Your task to perform on an android device: turn off notifications in google photos Image 0: 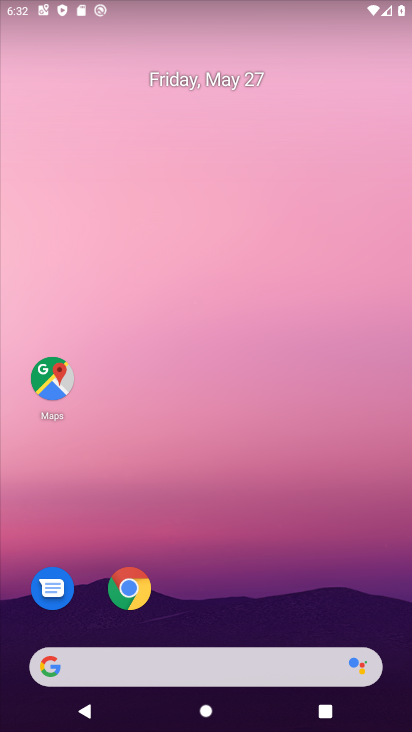
Step 0: press home button
Your task to perform on an android device: turn off notifications in google photos Image 1: 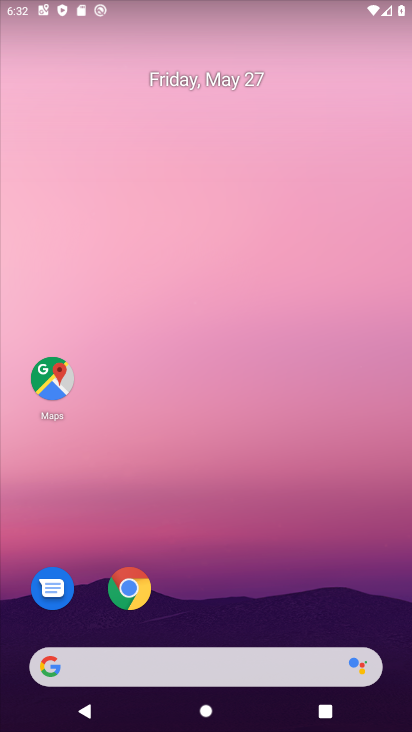
Step 1: drag from (287, 607) to (336, 140)
Your task to perform on an android device: turn off notifications in google photos Image 2: 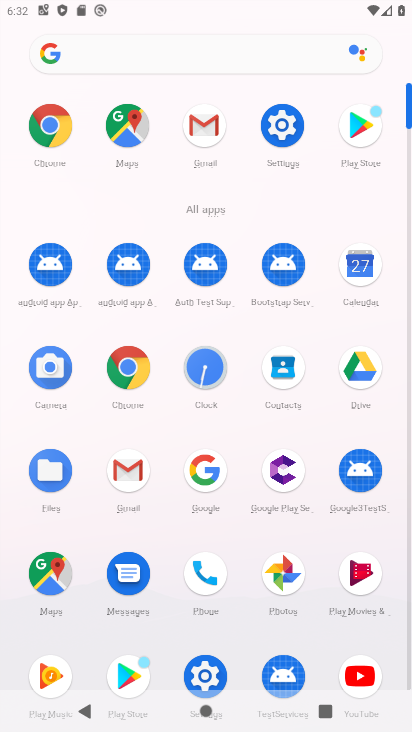
Step 2: click (267, 559)
Your task to perform on an android device: turn off notifications in google photos Image 3: 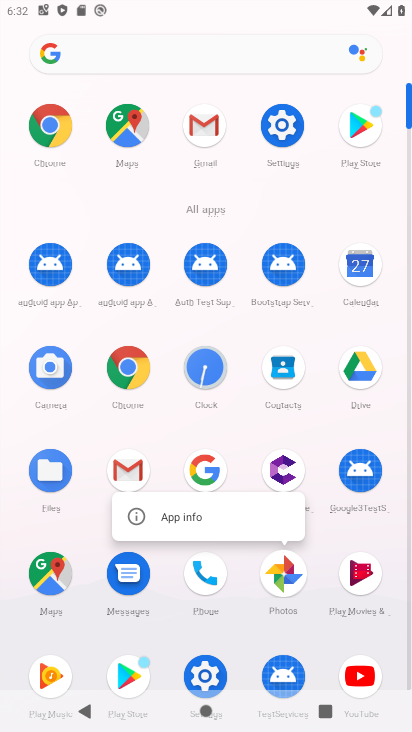
Step 3: click (243, 530)
Your task to perform on an android device: turn off notifications in google photos Image 4: 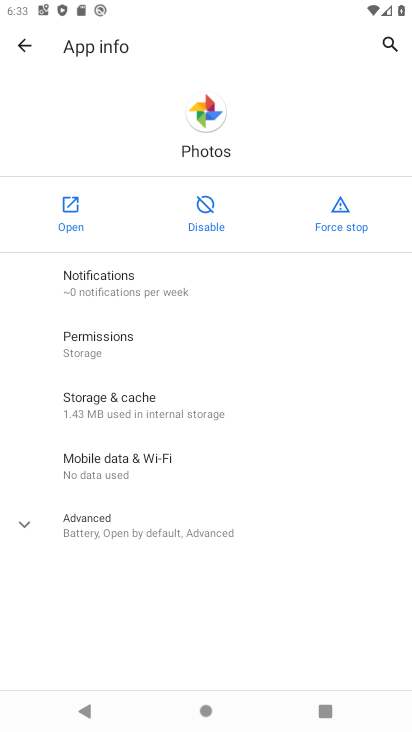
Step 4: click (142, 282)
Your task to perform on an android device: turn off notifications in google photos Image 5: 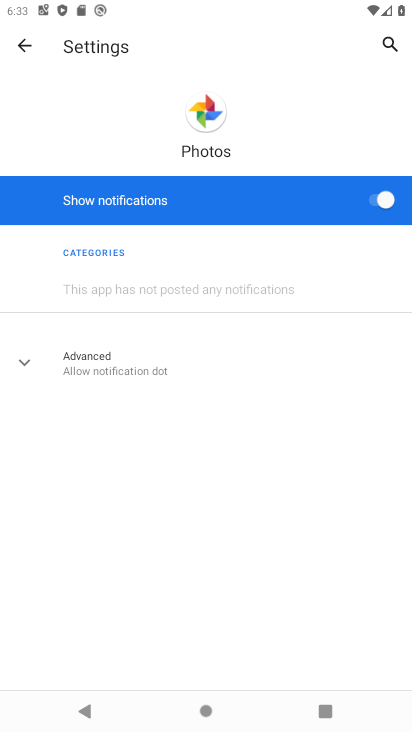
Step 5: click (199, 213)
Your task to perform on an android device: turn off notifications in google photos Image 6: 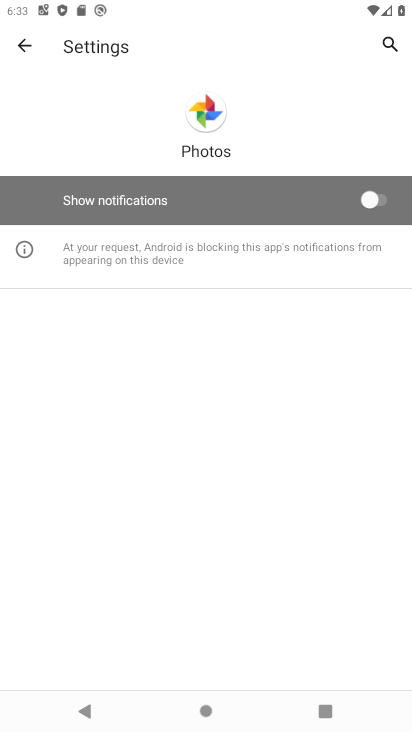
Step 6: task complete